Your task to perform on an android device: Open Yahoo.com Image 0: 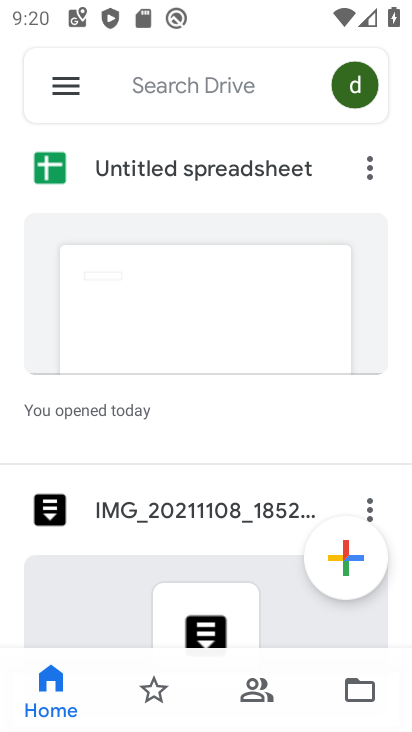
Step 0: press home button
Your task to perform on an android device: Open Yahoo.com Image 1: 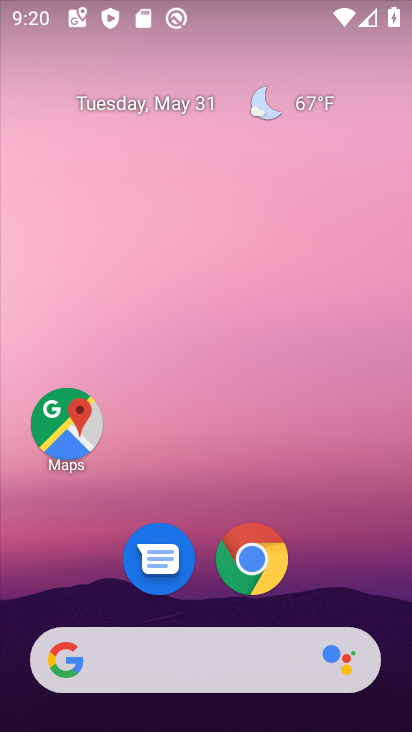
Step 1: click (250, 562)
Your task to perform on an android device: Open Yahoo.com Image 2: 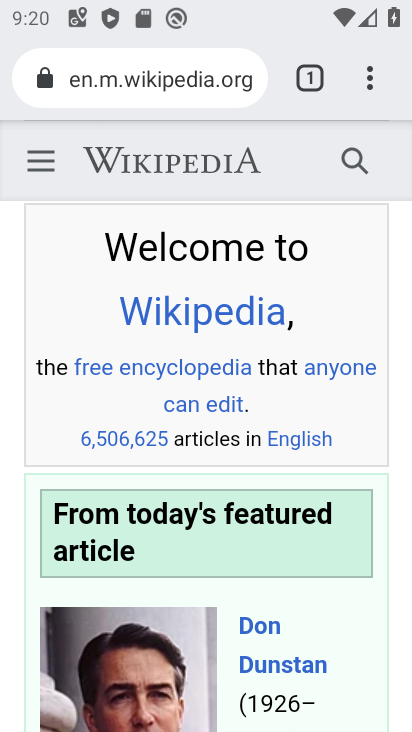
Step 2: press back button
Your task to perform on an android device: Open Yahoo.com Image 3: 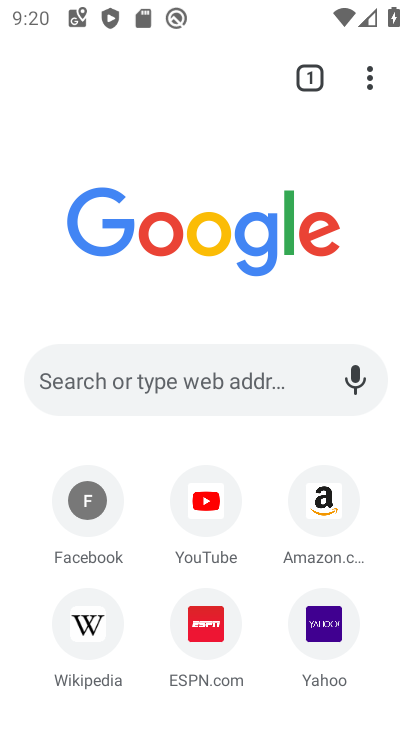
Step 3: click (329, 618)
Your task to perform on an android device: Open Yahoo.com Image 4: 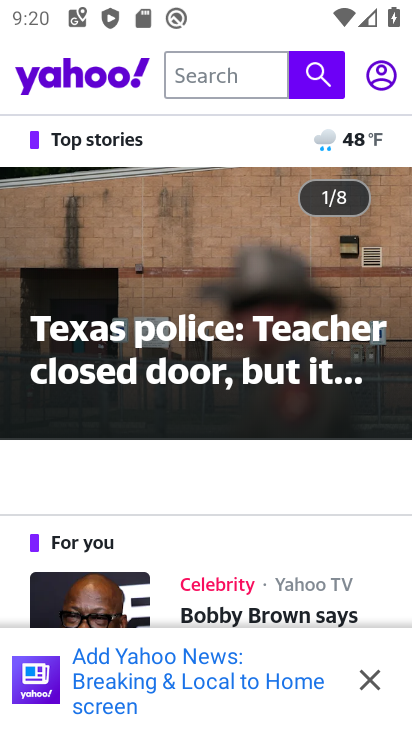
Step 4: task complete